Your task to perform on an android device: change notification settings in the gmail app Image 0: 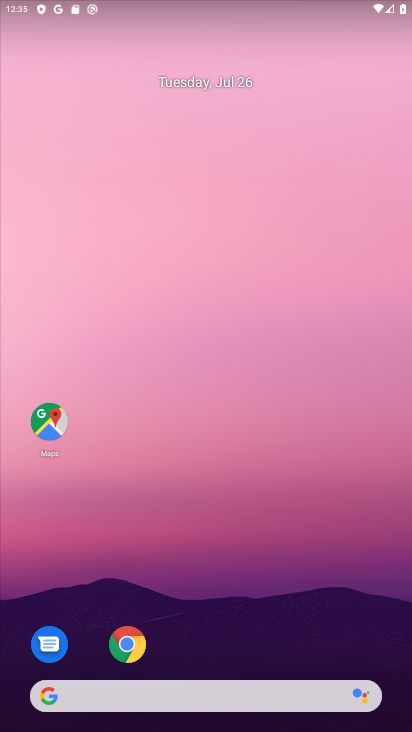
Step 0: drag from (197, 704) to (167, 197)
Your task to perform on an android device: change notification settings in the gmail app Image 1: 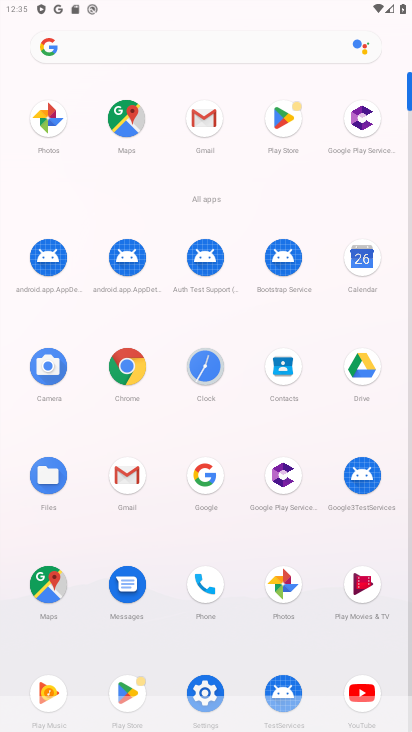
Step 1: click (129, 477)
Your task to perform on an android device: change notification settings in the gmail app Image 2: 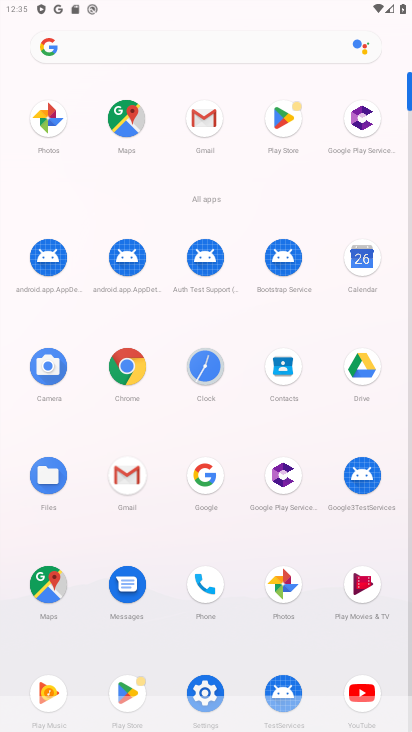
Step 2: click (123, 470)
Your task to perform on an android device: change notification settings in the gmail app Image 3: 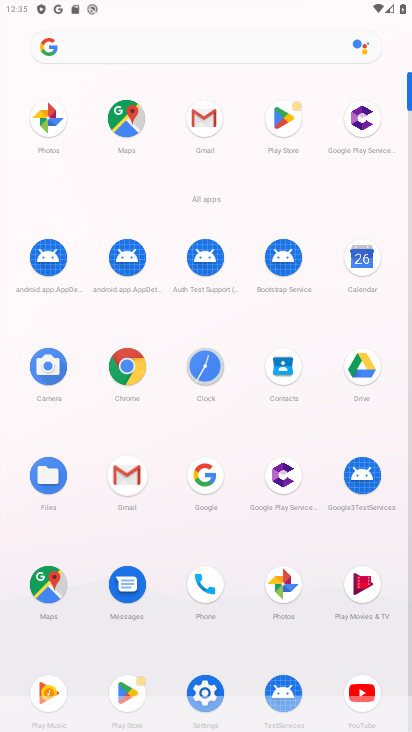
Step 3: click (123, 470)
Your task to perform on an android device: change notification settings in the gmail app Image 4: 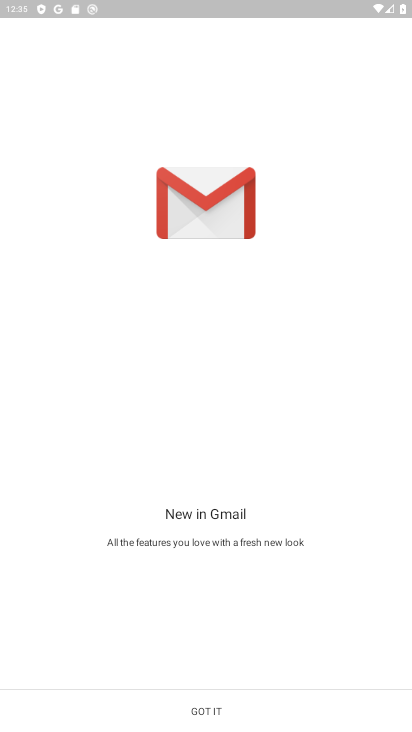
Step 4: click (216, 695)
Your task to perform on an android device: change notification settings in the gmail app Image 5: 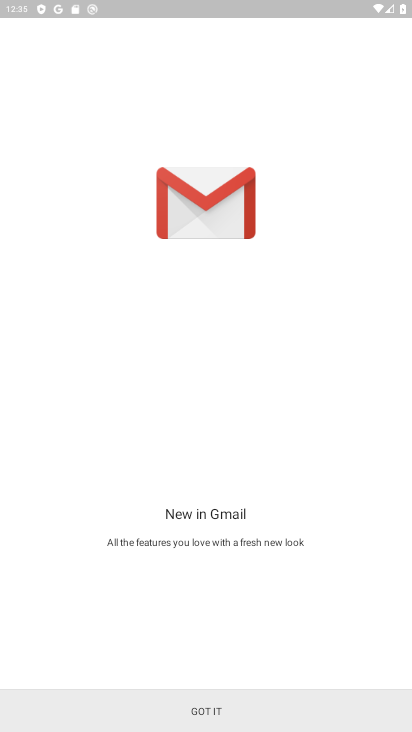
Step 5: click (215, 696)
Your task to perform on an android device: change notification settings in the gmail app Image 6: 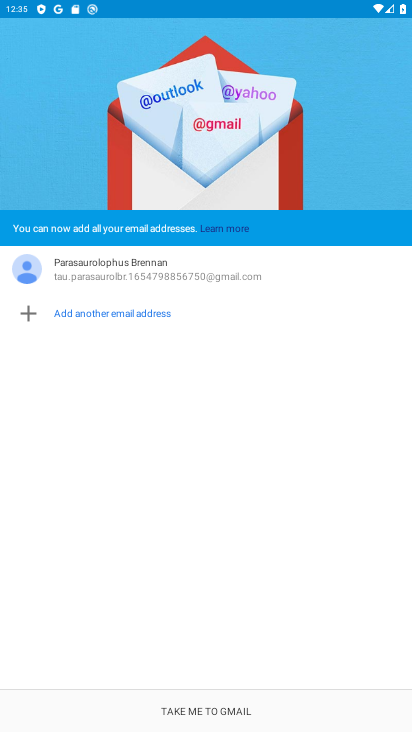
Step 6: click (219, 702)
Your task to perform on an android device: change notification settings in the gmail app Image 7: 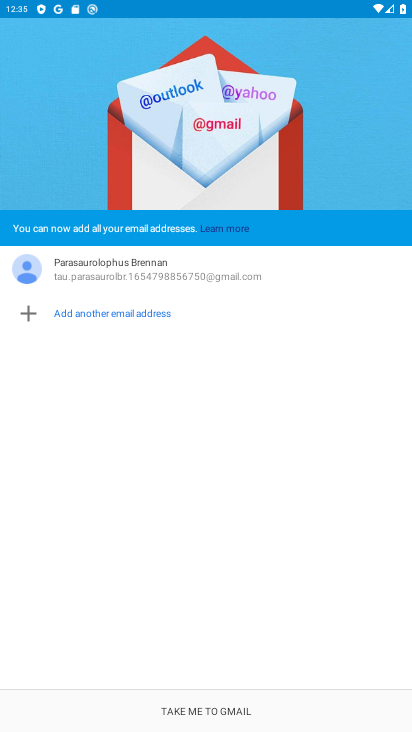
Step 7: click (222, 701)
Your task to perform on an android device: change notification settings in the gmail app Image 8: 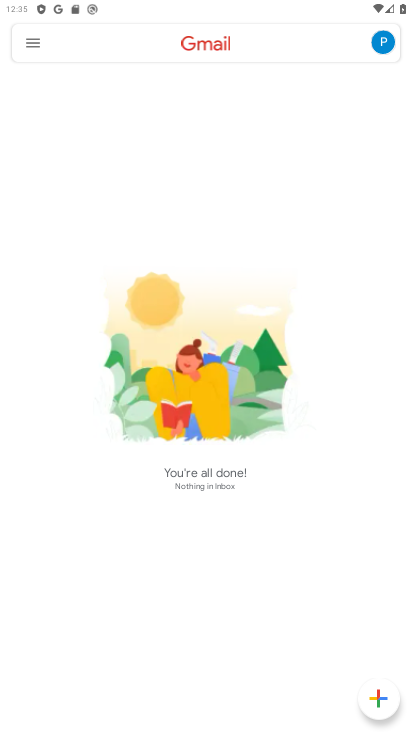
Step 8: click (28, 26)
Your task to perform on an android device: change notification settings in the gmail app Image 9: 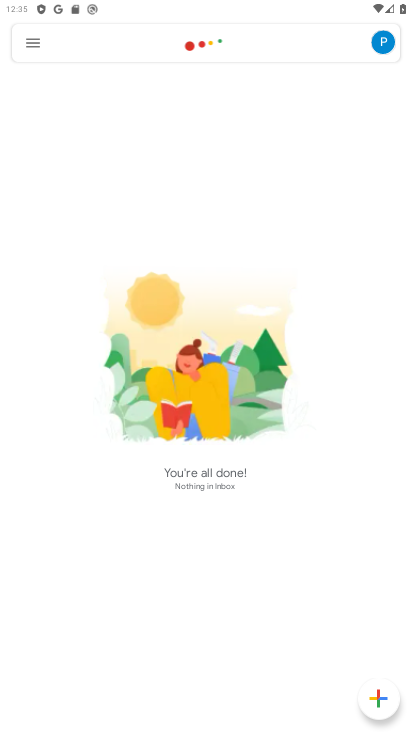
Step 9: click (28, 26)
Your task to perform on an android device: change notification settings in the gmail app Image 10: 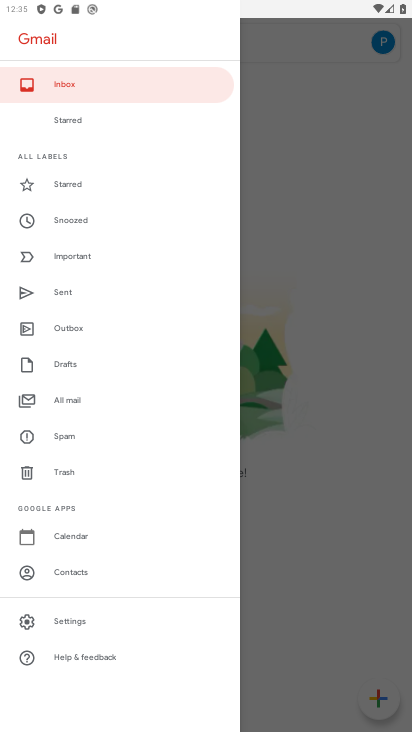
Step 10: click (75, 617)
Your task to perform on an android device: change notification settings in the gmail app Image 11: 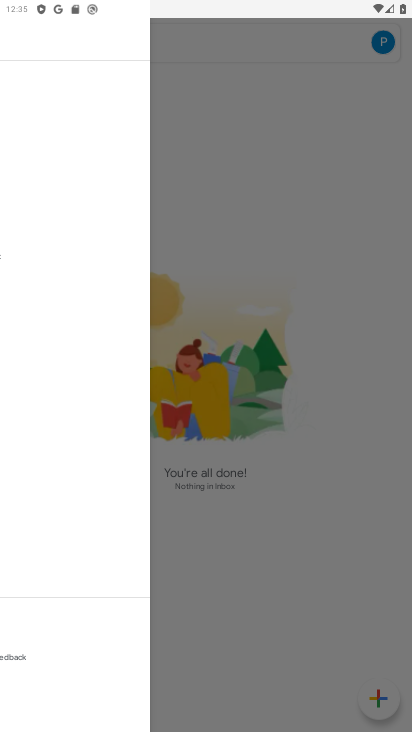
Step 11: click (75, 617)
Your task to perform on an android device: change notification settings in the gmail app Image 12: 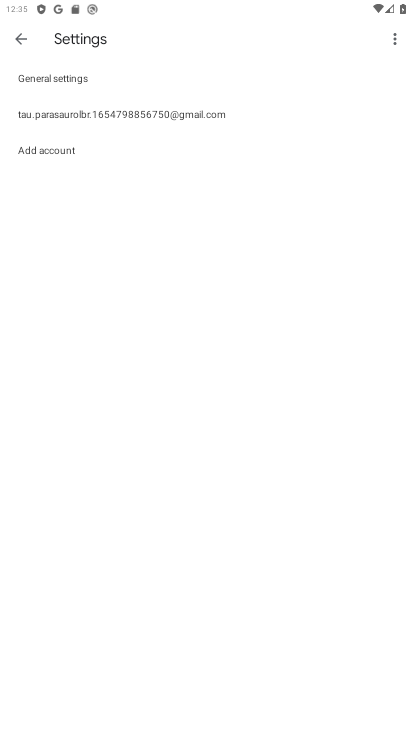
Step 12: click (83, 116)
Your task to perform on an android device: change notification settings in the gmail app Image 13: 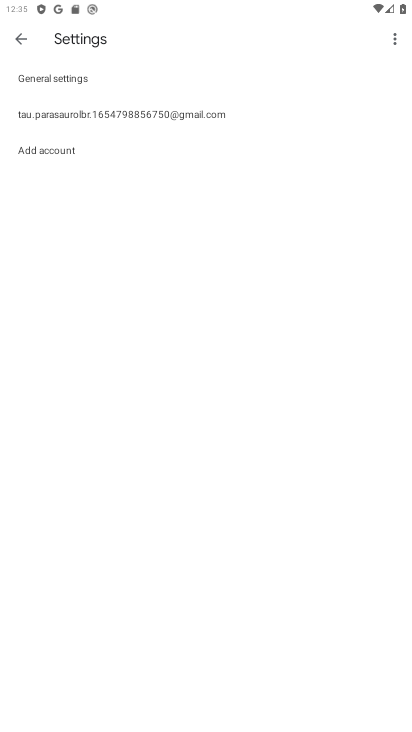
Step 13: click (87, 116)
Your task to perform on an android device: change notification settings in the gmail app Image 14: 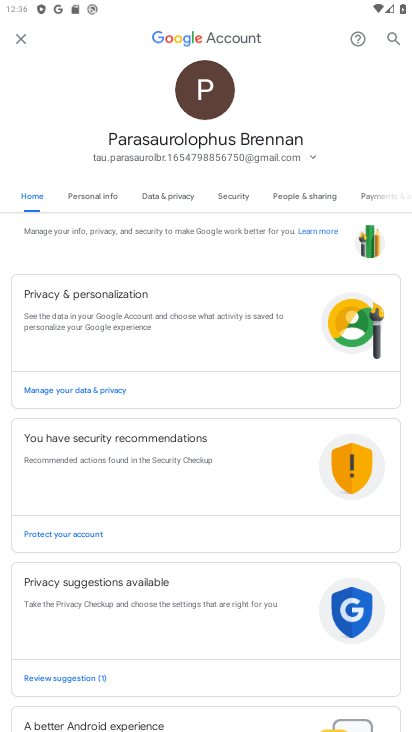
Step 14: click (99, 218)
Your task to perform on an android device: change notification settings in the gmail app Image 15: 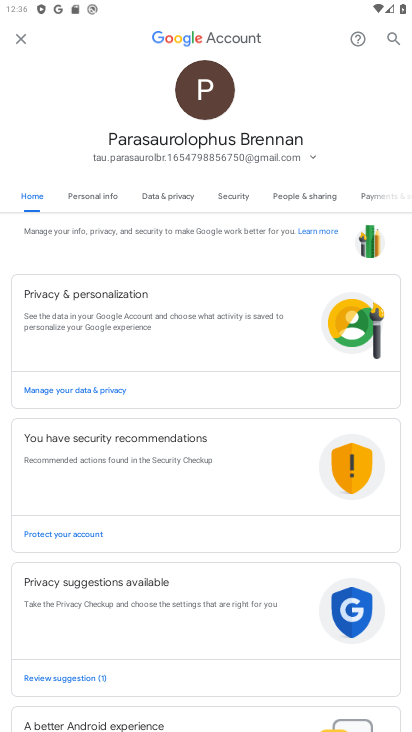
Step 15: click (71, 215)
Your task to perform on an android device: change notification settings in the gmail app Image 16: 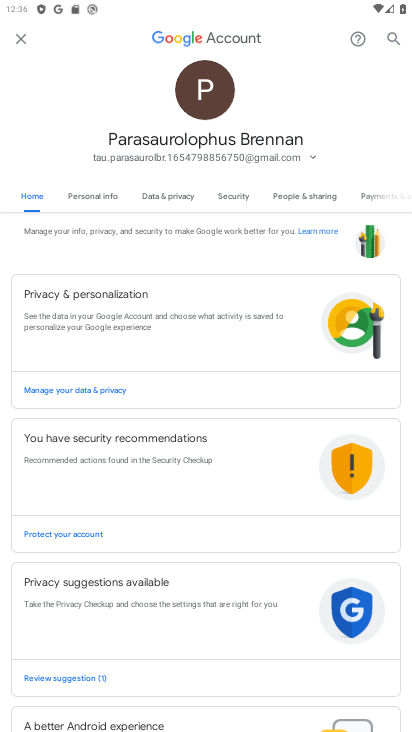
Step 16: click (46, 197)
Your task to perform on an android device: change notification settings in the gmail app Image 17: 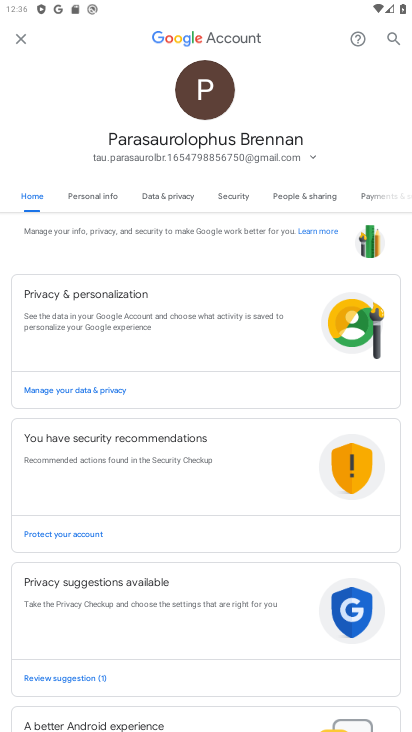
Step 17: click (41, 123)
Your task to perform on an android device: change notification settings in the gmail app Image 18: 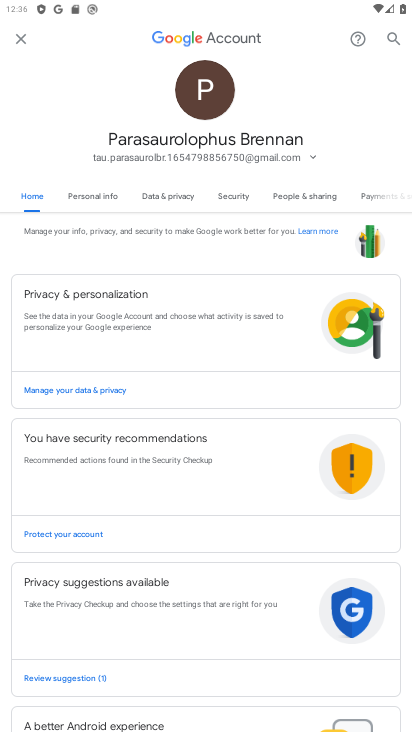
Step 18: click (57, 140)
Your task to perform on an android device: change notification settings in the gmail app Image 19: 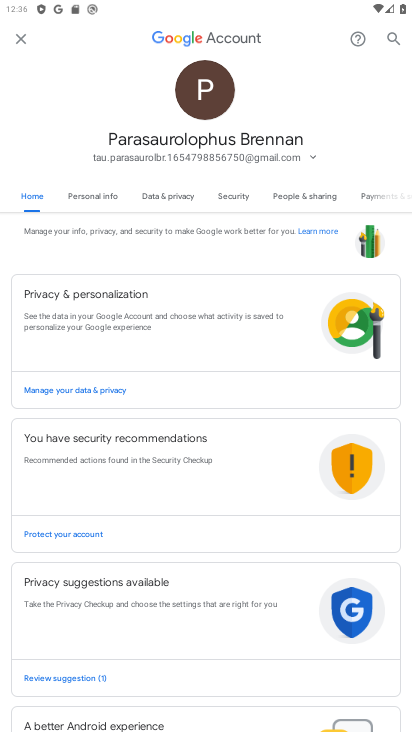
Step 19: click (59, 182)
Your task to perform on an android device: change notification settings in the gmail app Image 20: 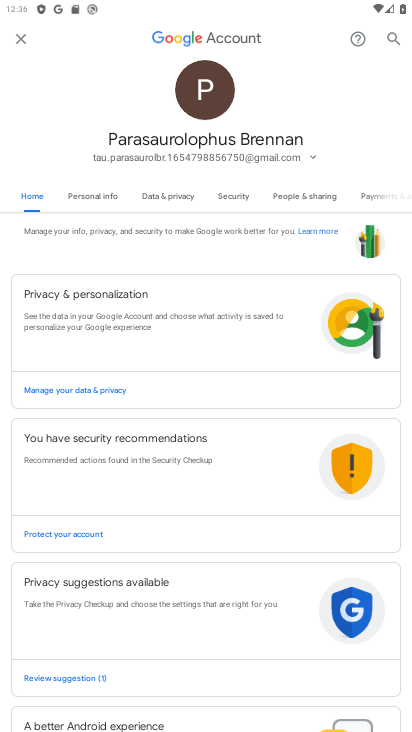
Step 20: click (44, 175)
Your task to perform on an android device: change notification settings in the gmail app Image 21: 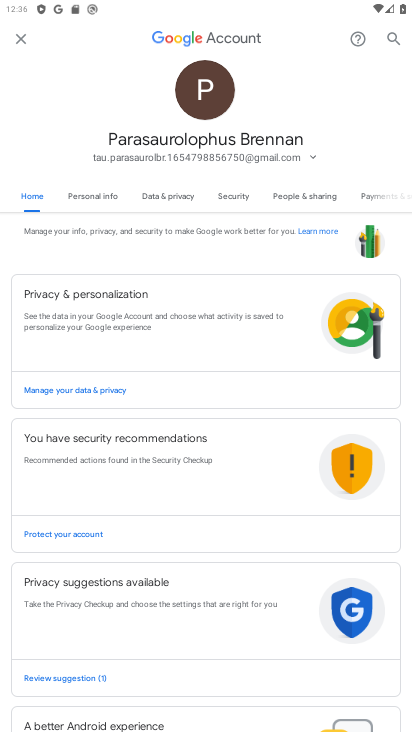
Step 21: drag from (26, 218) to (69, 199)
Your task to perform on an android device: change notification settings in the gmail app Image 22: 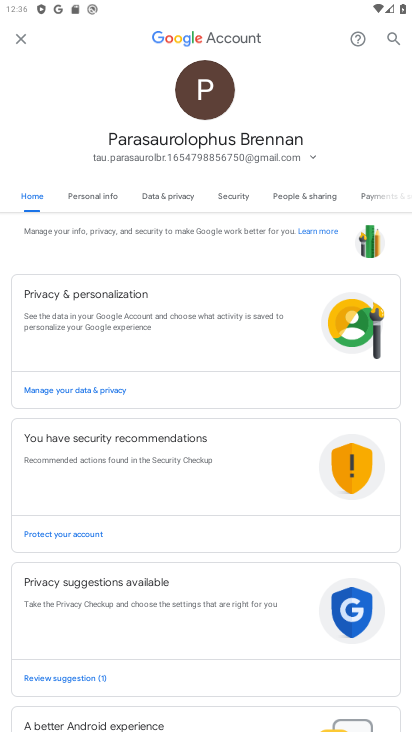
Step 22: press back button
Your task to perform on an android device: change notification settings in the gmail app Image 23: 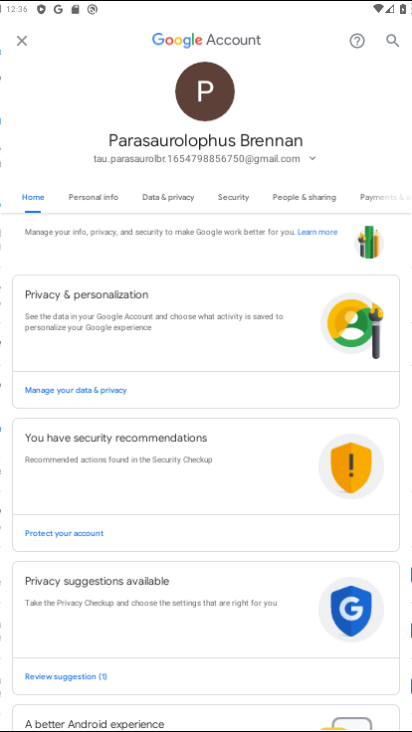
Step 23: click (18, 34)
Your task to perform on an android device: change notification settings in the gmail app Image 24: 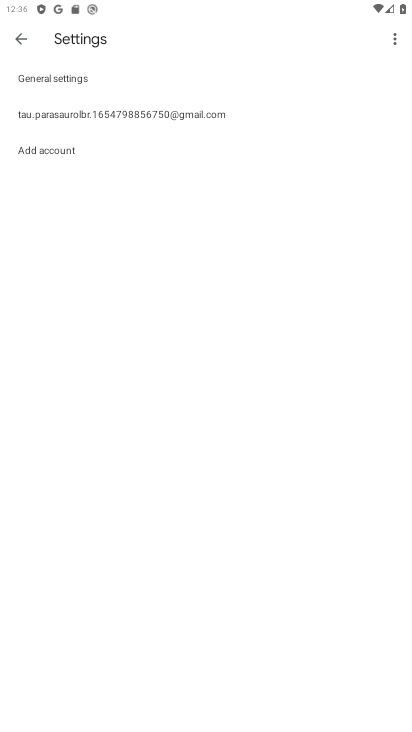
Step 24: click (21, 41)
Your task to perform on an android device: change notification settings in the gmail app Image 25: 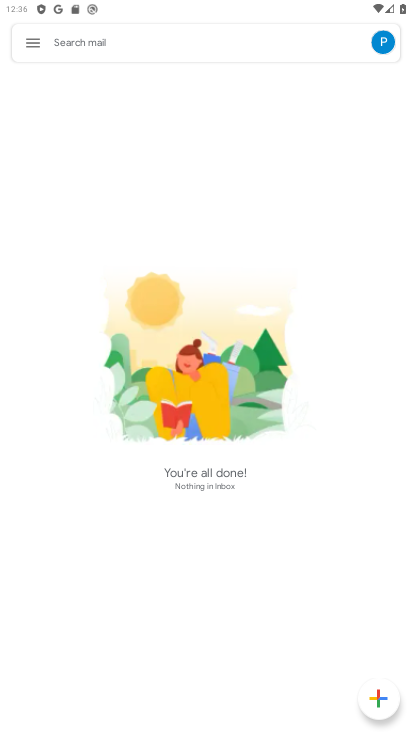
Step 25: click (20, 34)
Your task to perform on an android device: change notification settings in the gmail app Image 26: 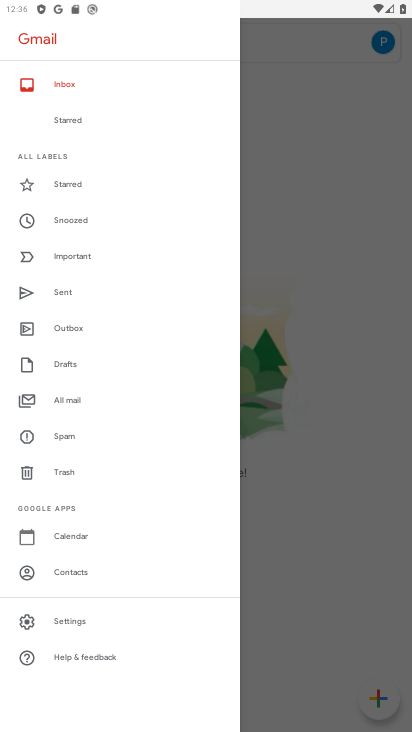
Step 26: click (27, 37)
Your task to perform on an android device: change notification settings in the gmail app Image 27: 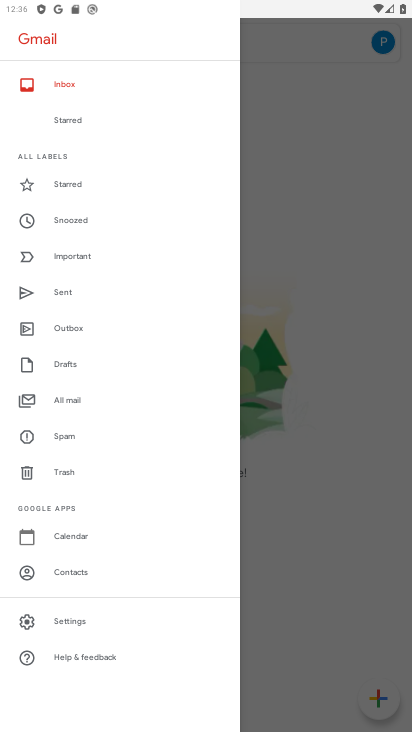
Step 27: click (72, 617)
Your task to perform on an android device: change notification settings in the gmail app Image 28: 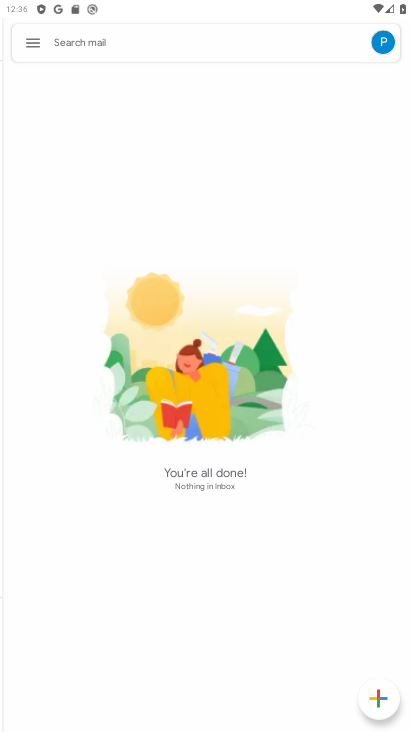
Step 28: click (71, 616)
Your task to perform on an android device: change notification settings in the gmail app Image 29: 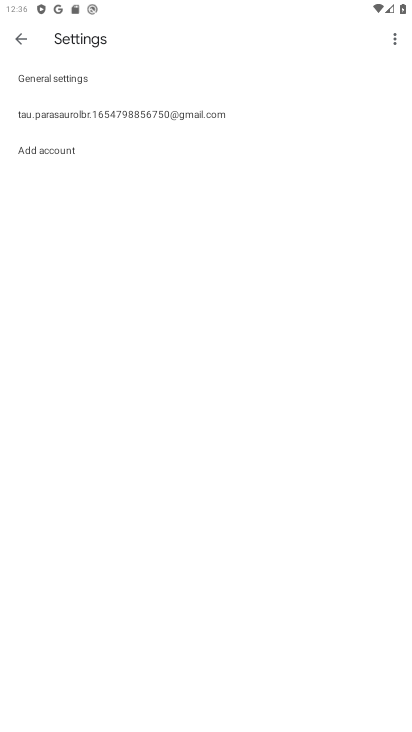
Step 29: click (90, 112)
Your task to perform on an android device: change notification settings in the gmail app Image 30: 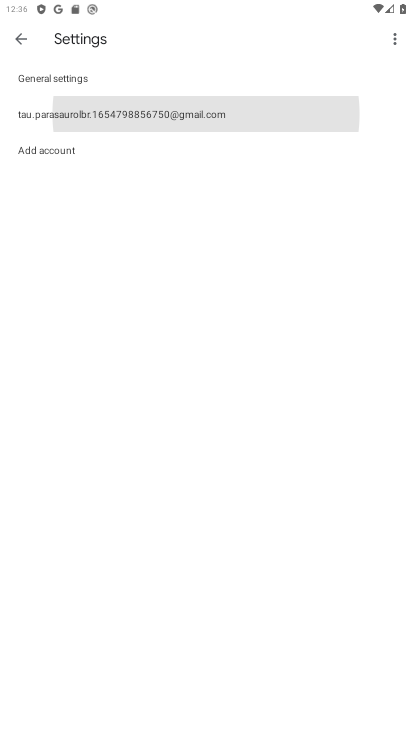
Step 30: click (89, 111)
Your task to perform on an android device: change notification settings in the gmail app Image 31: 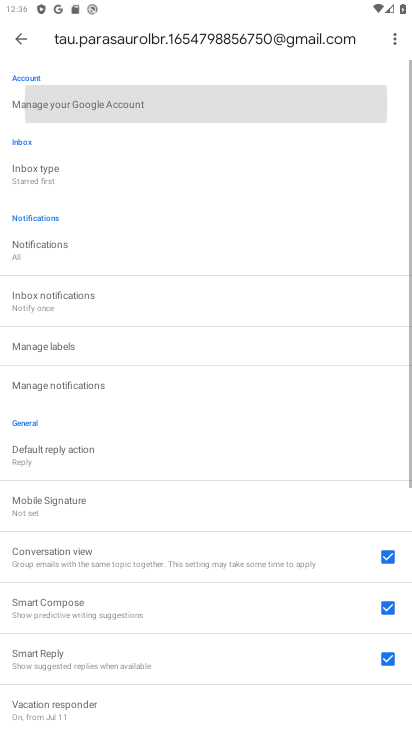
Step 31: click (111, 121)
Your task to perform on an android device: change notification settings in the gmail app Image 32: 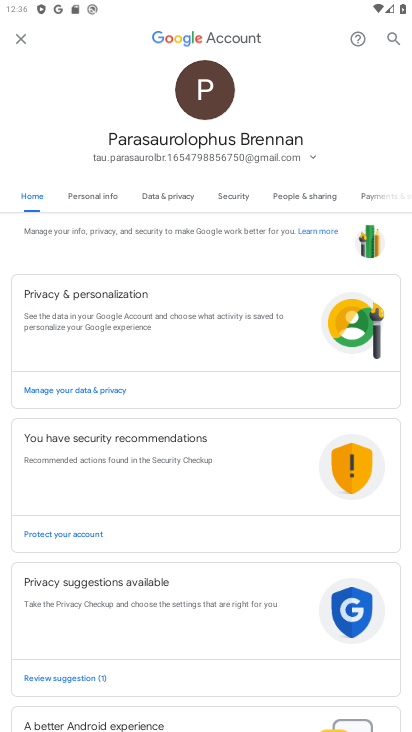
Step 32: click (15, 57)
Your task to perform on an android device: change notification settings in the gmail app Image 33: 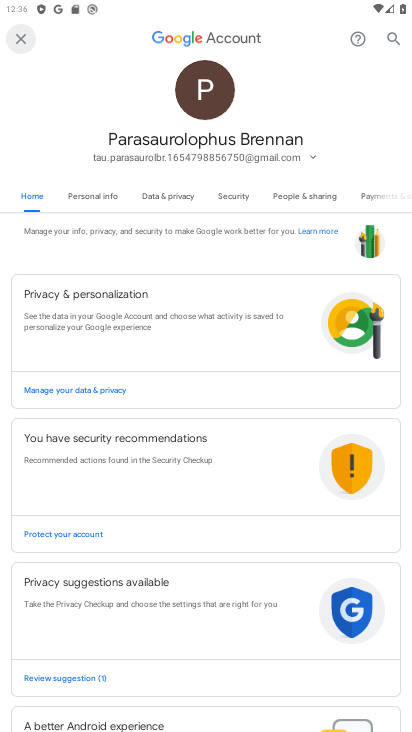
Step 33: click (18, 38)
Your task to perform on an android device: change notification settings in the gmail app Image 34: 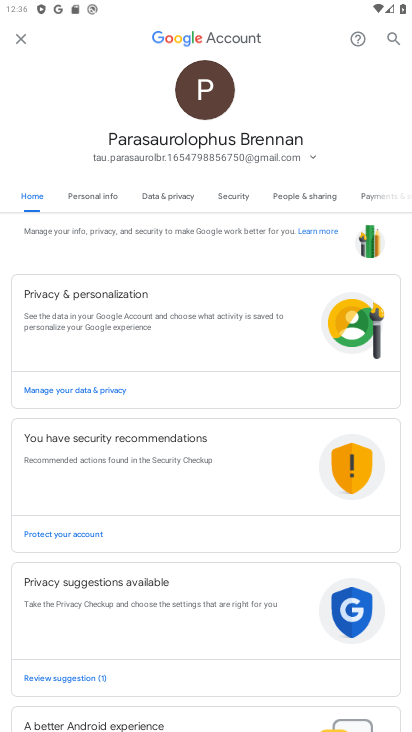
Step 34: click (10, 31)
Your task to perform on an android device: change notification settings in the gmail app Image 35: 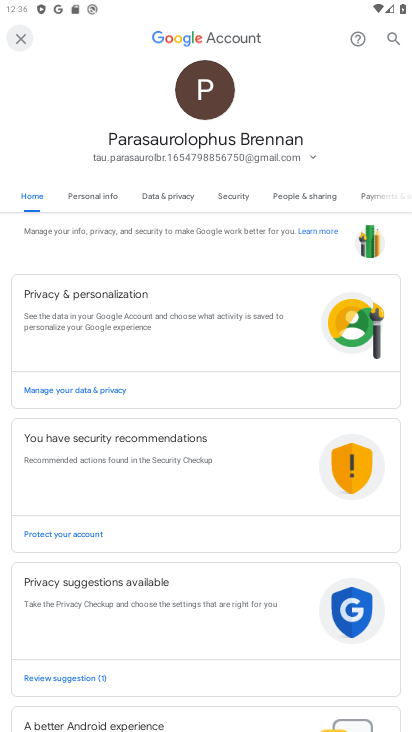
Step 35: click (13, 33)
Your task to perform on an android device: change notification settings in the gmail app Image 36: 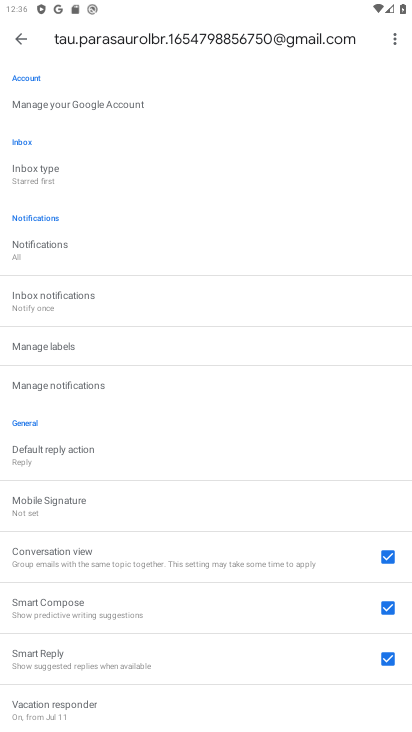
Step 36: click (37, 257)
Your task to perform on an android device: change notification settings in the gmail app Image 37: 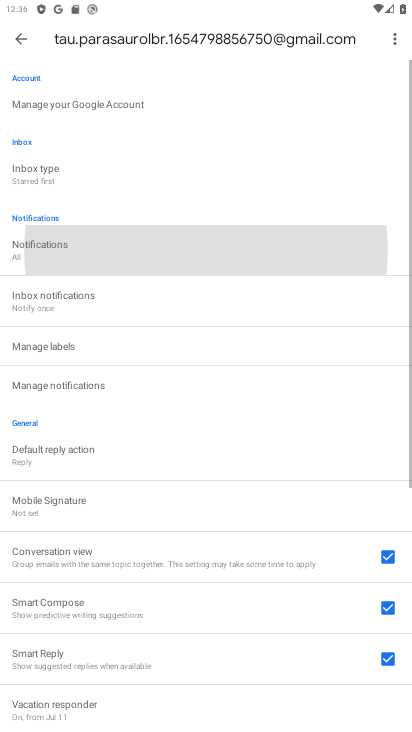
Step 37: click (39, 252)
Your task to perform on an android device: change notification settings in the gmail app Image 38: 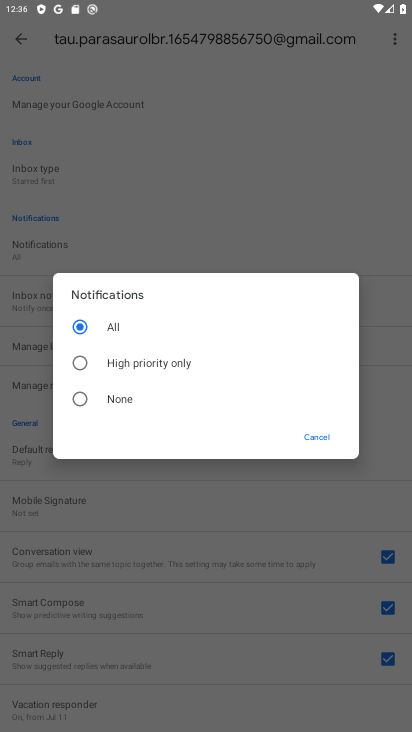
Step 38: click (84, 361)
Your task to perform on an android device: change notification settings in the gmail app Image 39: 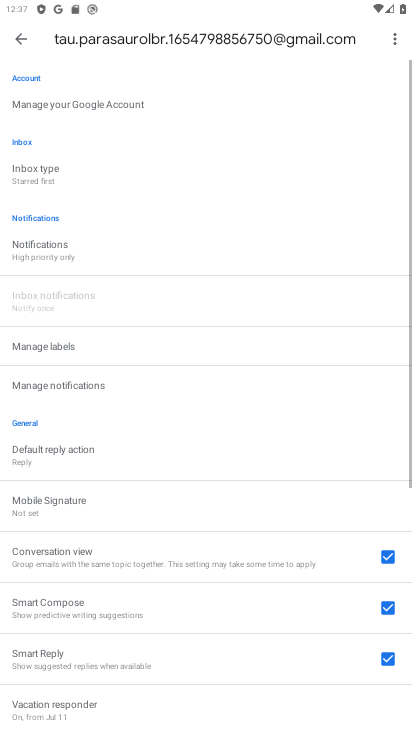
Step 39: task complete